Your task to perform on an android device: Search for the new Nintendo switch on Best Buy Image 0: 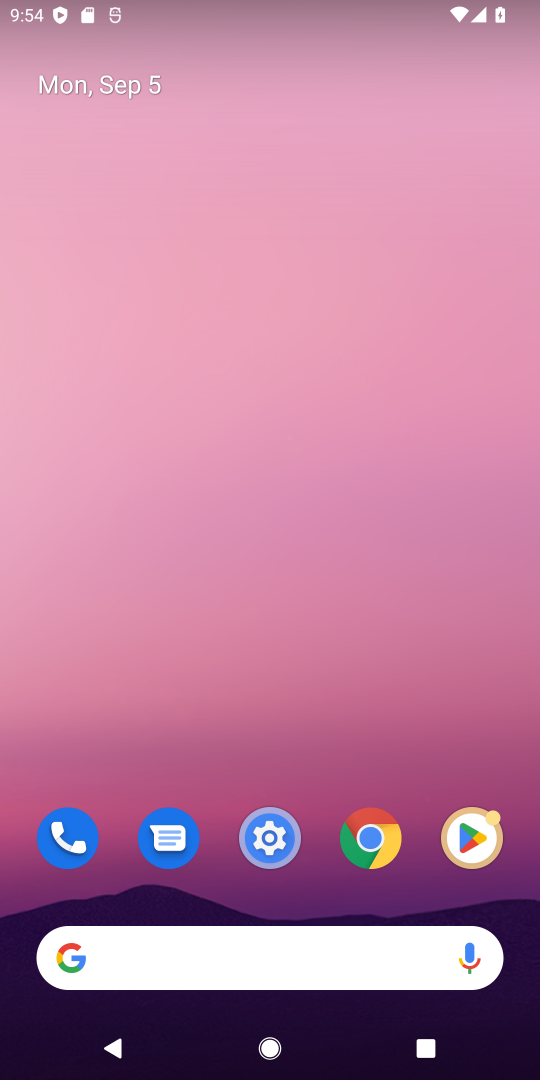
Step 0: click (251, 937)
Your task to perform on an android device: Search for the new Nintendo switch on Best Buy Image 1: 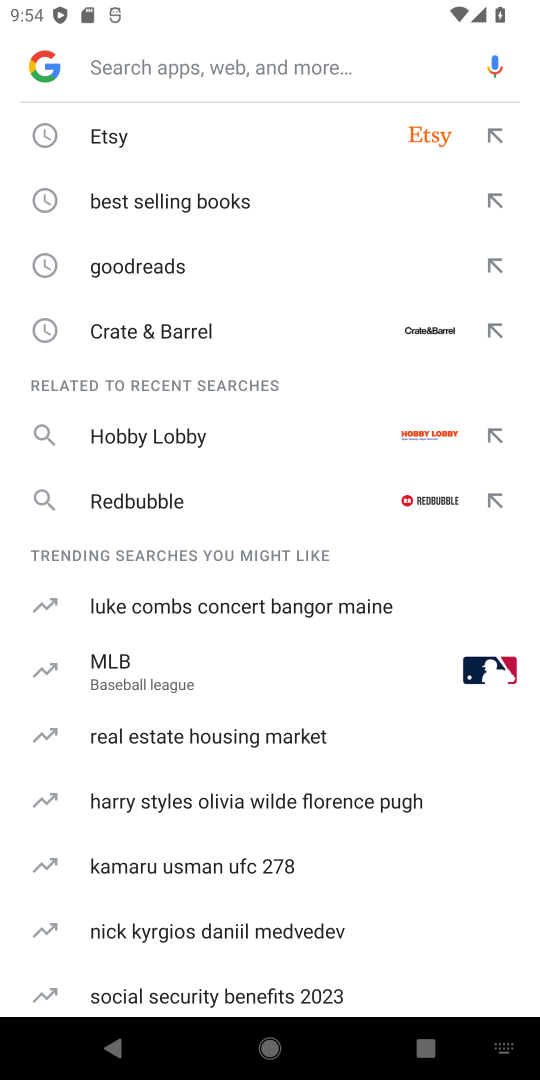
Step 1: type " Best Buy"
Your task to perform on an android device: Search for the new Nintendo switch on Best Buy Image 2: 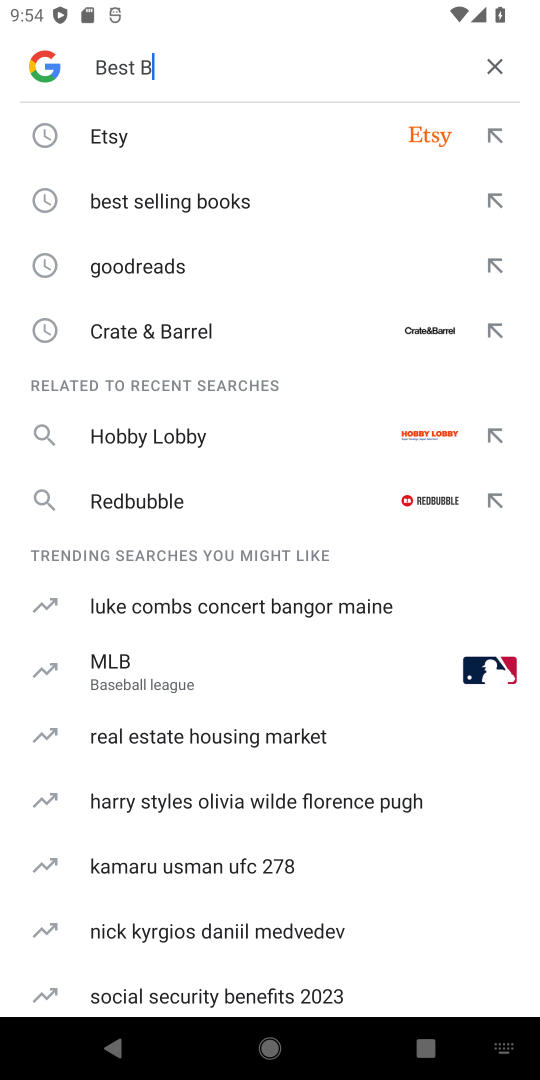
Step 2: type ""
Your task to perform on an android device: Search for the new Nintendo switch on Best Buy Image 3: 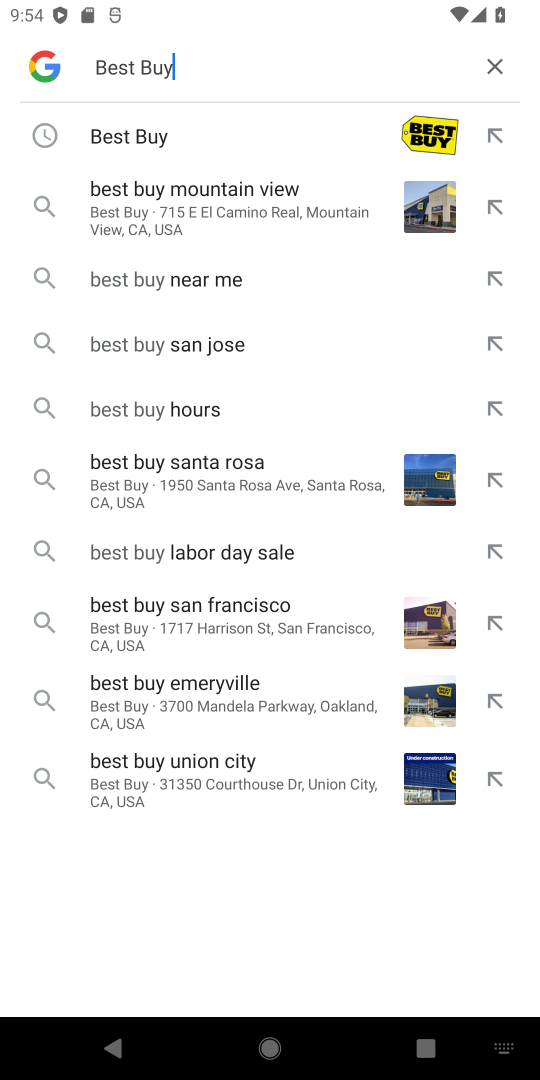
Step 3: click (182, 139)
Your task to perform on an android device: Search for the new Nintendo switch on Best Buy Image 4: 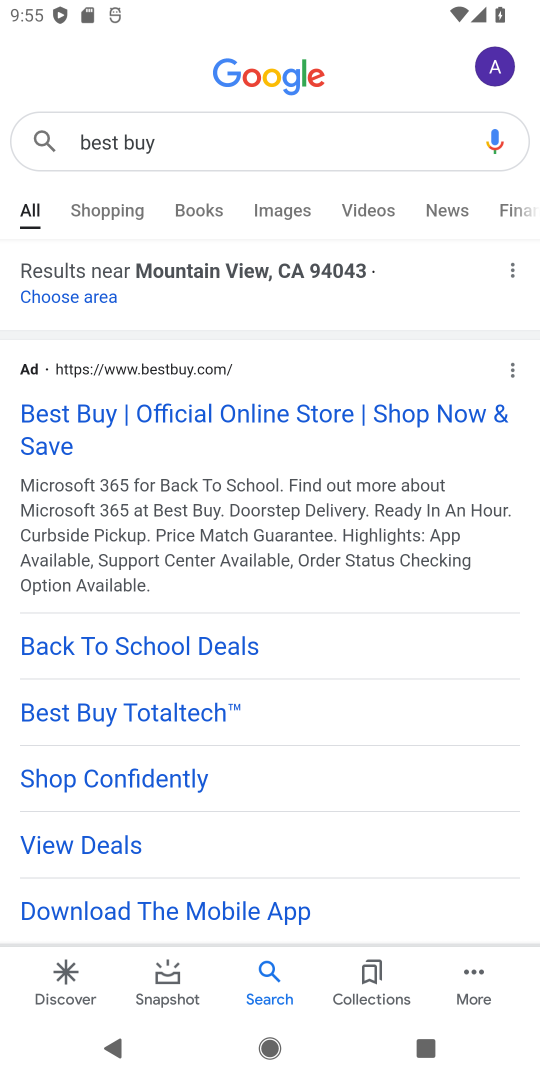
Step 4: drag from (219, 771) to (241, 326)
Your task to perform on an android device: Search for the new Nintendo switch on Best Buy Image 5: 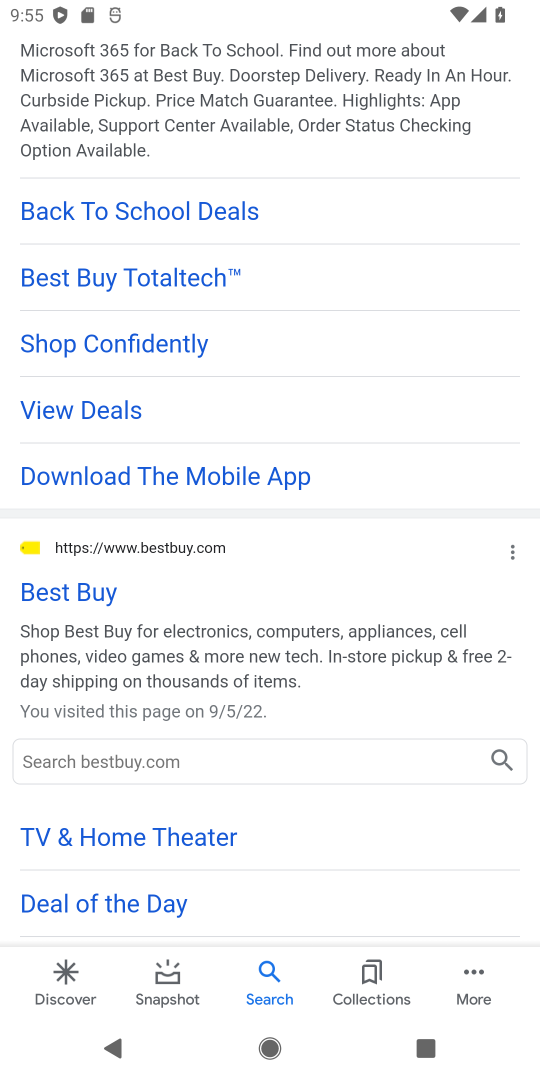
Step 5: click (80, 853)
Your task to perform on an android device: Search for the new Nintendo switch on Best Buy Image 6: 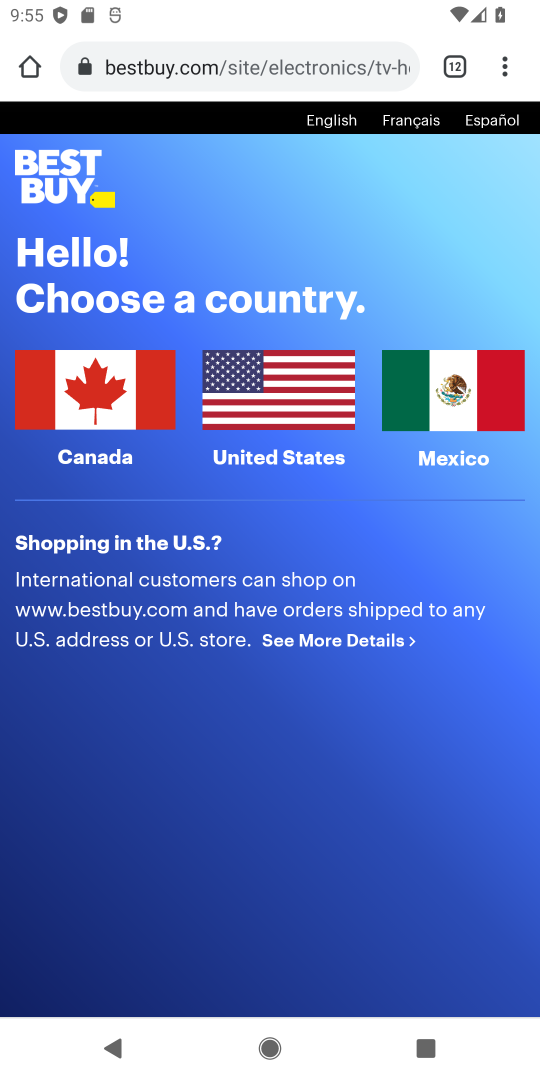
Step 6: click (301, 435)
Your task to perform on an android device: Search for the new Nintendo switch on Best Buy Image 7: 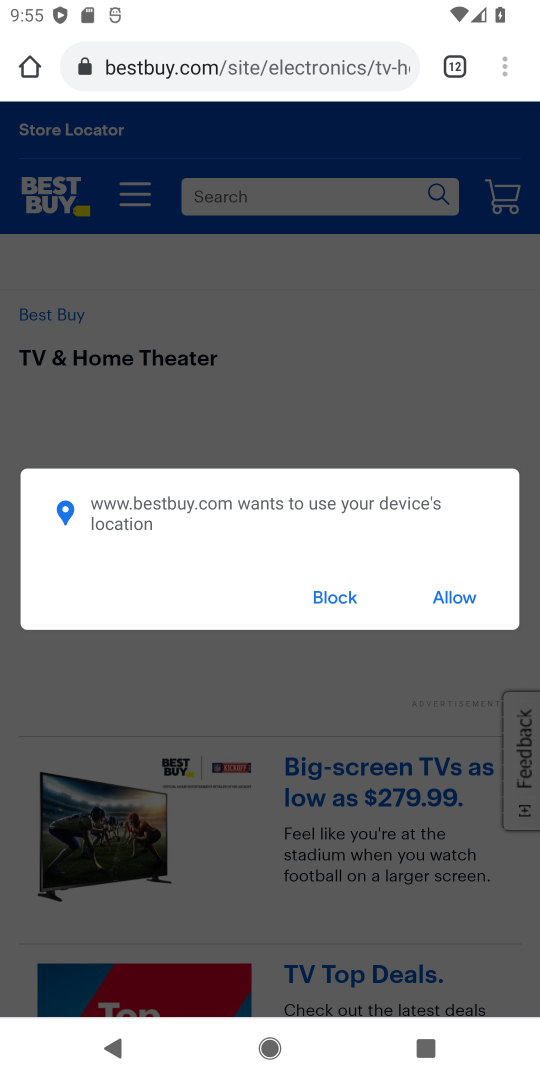
Step 7: click (470, 592)
Your task to perform on an android device: Search for the new Nintendo switch on Best Buy Image 8: 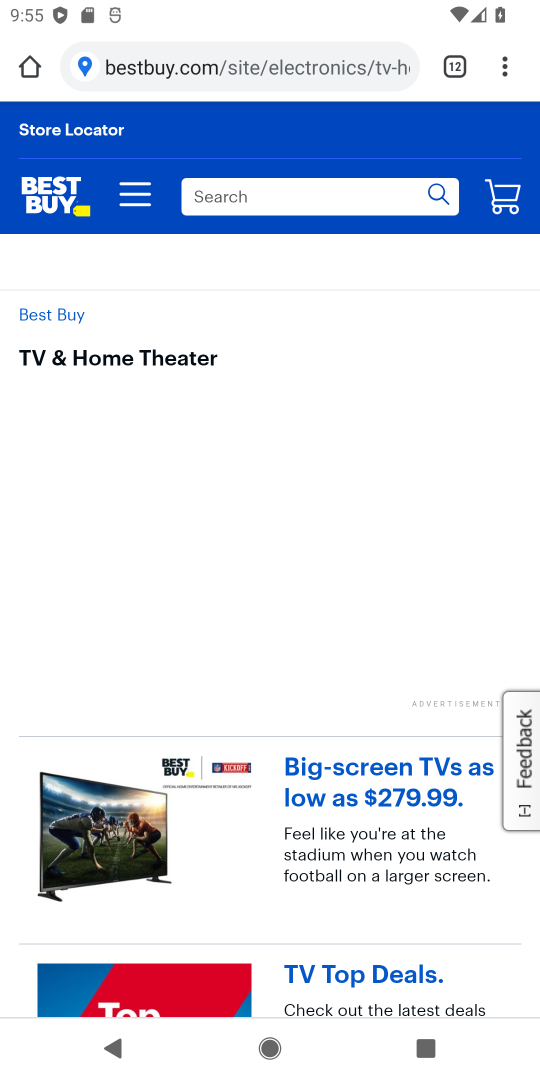
Step 8: drag from (288, 709) to (343, 345)
Your task to perform on an android device: Search for the new Nintendo switch on Best Buy Image 9: 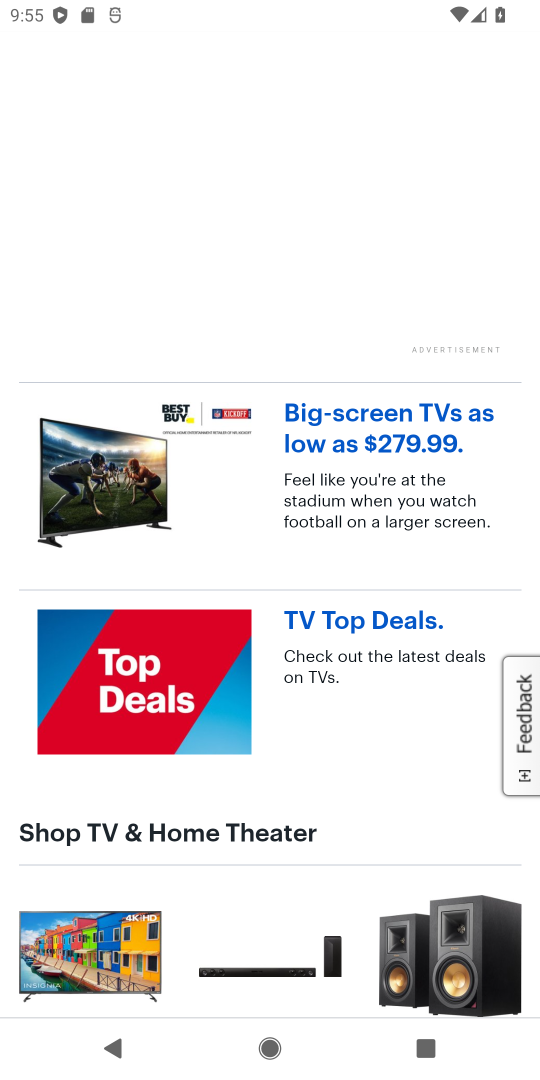
Step 9: click (302, 497)
Your task to perform on an android device: Search for the new Nintendo switch on Best Buy Image 10: 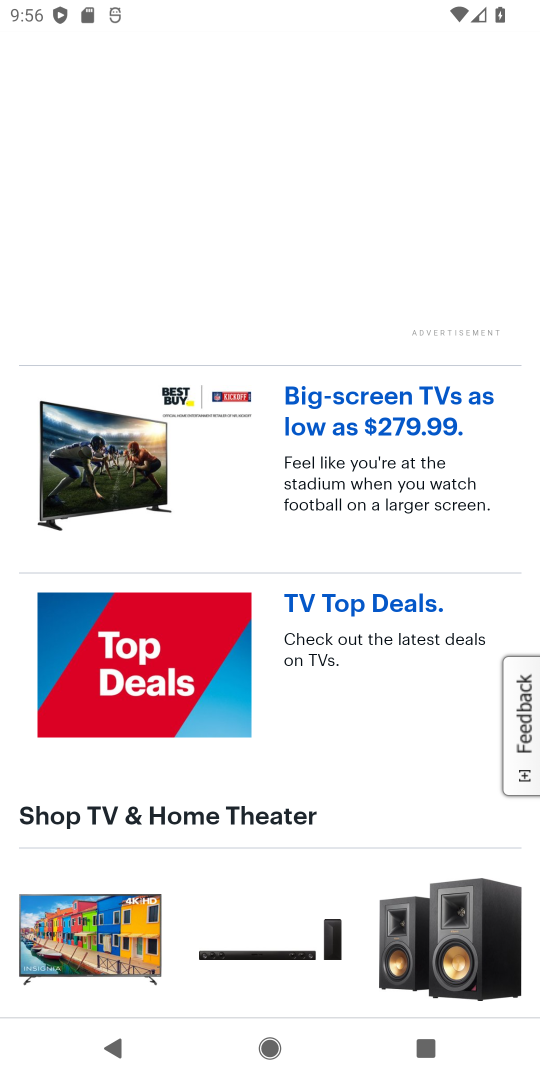
Step 10: task complete